Your task to perform on an android device: turn on the 12-hour format for clock Image 0: 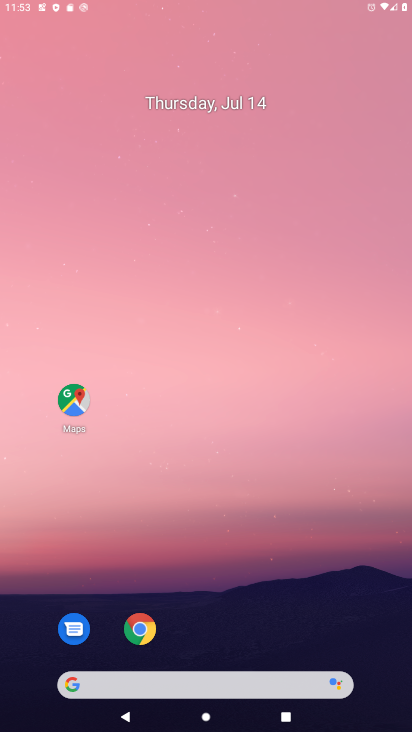
Step 0: press home button
Your task to perform on an android device: turn on the 12-hour format for clock Image 1: 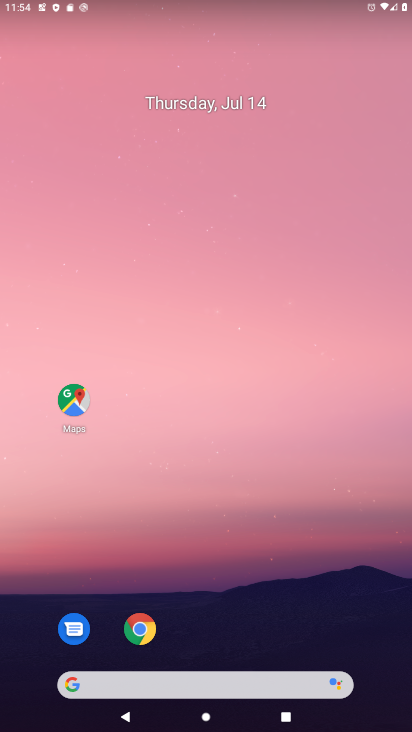
Step 1: drag from (195, 604) to (263, 22)
Your task to perform on an android device: turn on the 12-hour format for clock Image 2: 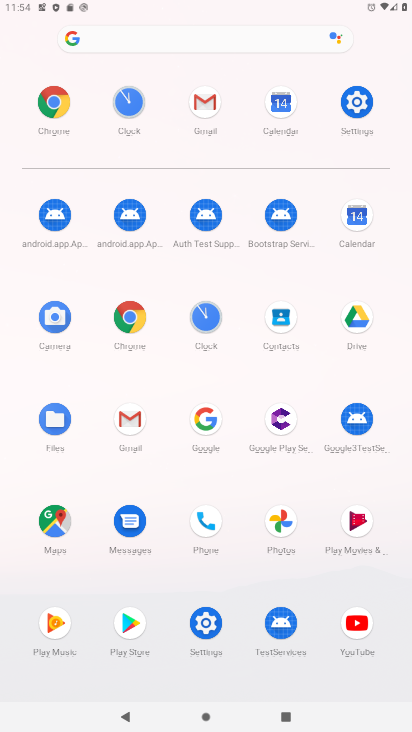
Step 2: click (358, 98)
Your task to perform on an android device: turn on the 12-hour format for clock Image 3: 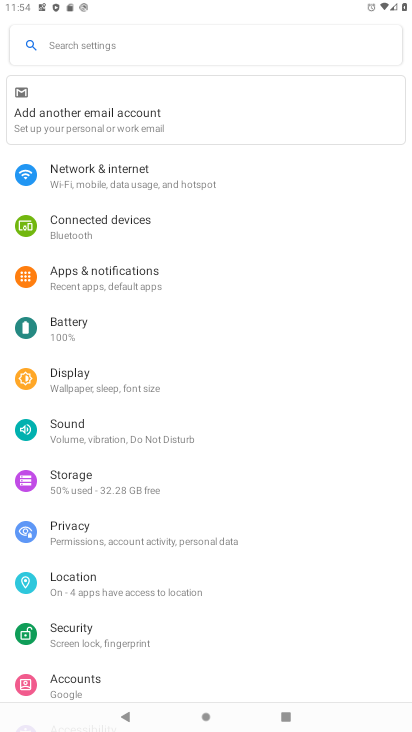
Step 3: drag from (264, 615) to (287, 170)
Your task to perform on an android device: turn on the 12-hour format for clock Image 4: 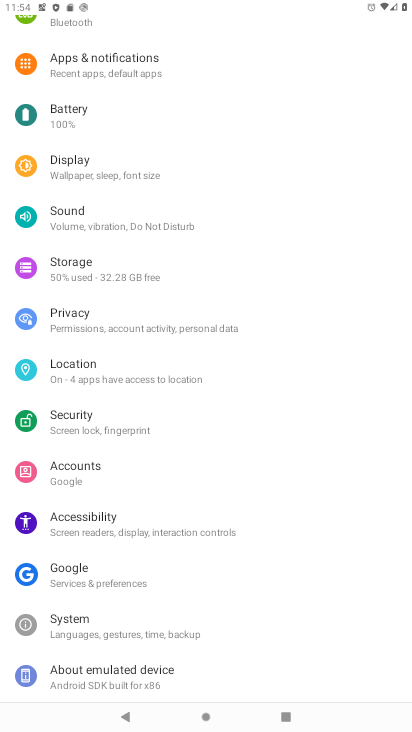
Step 4: click (54, 629)
Your task to perform on an android device: turn on the 12-hour format for clock Image 5: 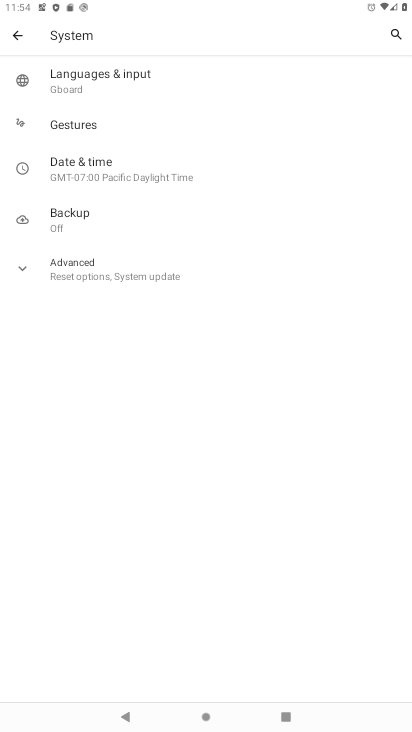
Step 5: click (68, 169)
Your task to perform on an android device: turn on the 12-hour format for clock Image 6: 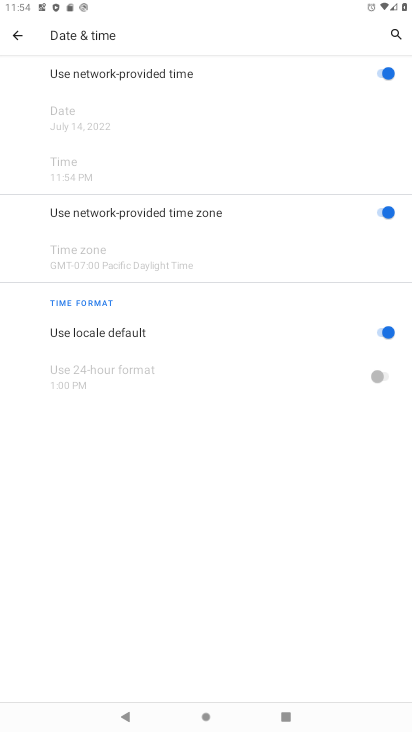
Step 6: click (388, 336)
Your task to perform on an android device: turn on the 12-hour format for clock Image 7: 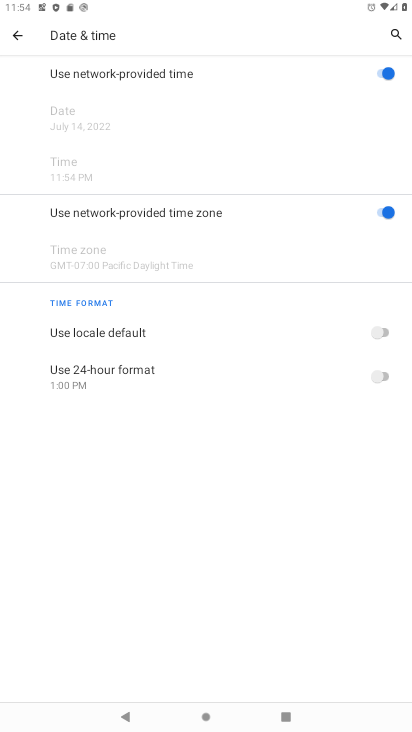
Step 7: task complete